Your task to perform on an android device: Go to accessibility settings Image 0: 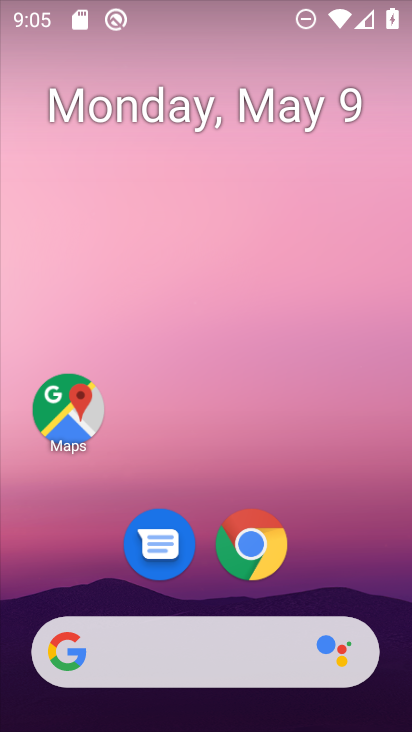
Step 0: drag from (322, 563) to (275, 238)
Your task to perform on an android device: Go to accessibility settings Image 1: 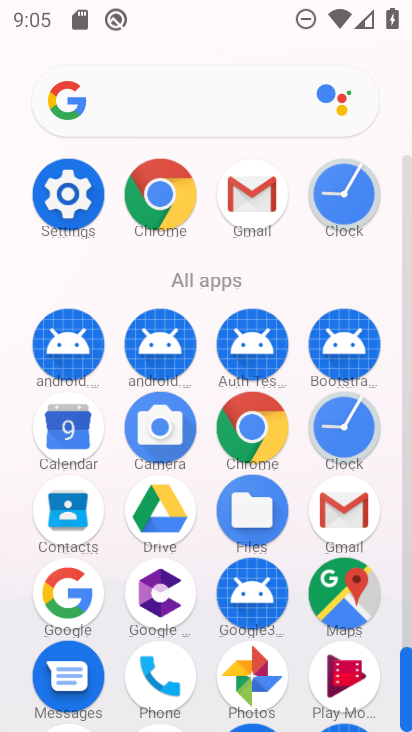
Step 1: click (72, 194)
Your task to perform on an android device: Go to accessibility settings Image 2: 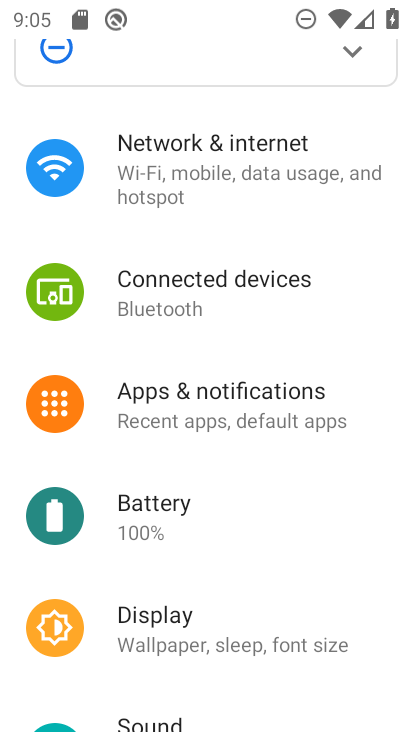
Step 2: drag from (205, 577) to (209, 41)
Your task to perform on an android device: Go to accessibility settings Image 3: 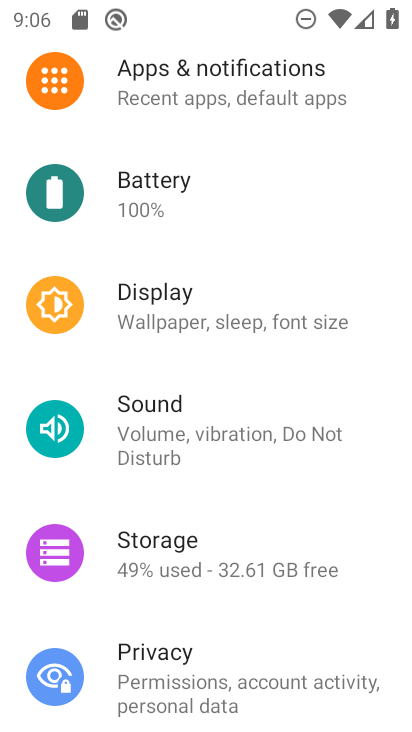
Step 3: drag from (197, 506) to (172, 197)
Your task to perform on an android device: Go to accessibility settings Image 4: 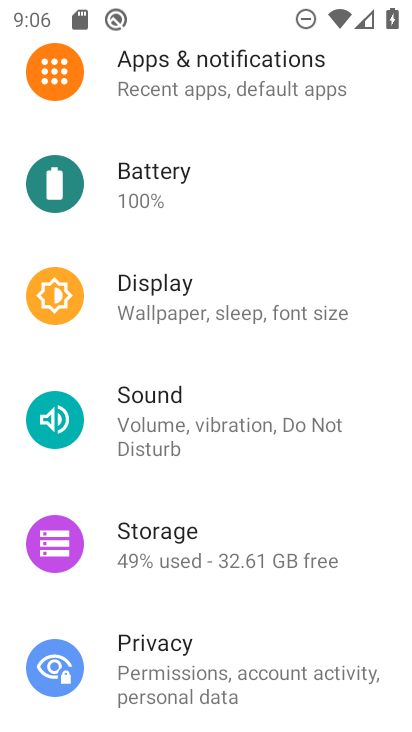
Step 4: drag from (130, 593) to (262, 118)
Your task to perform on an android device: Go to accessibility settings Image 5: 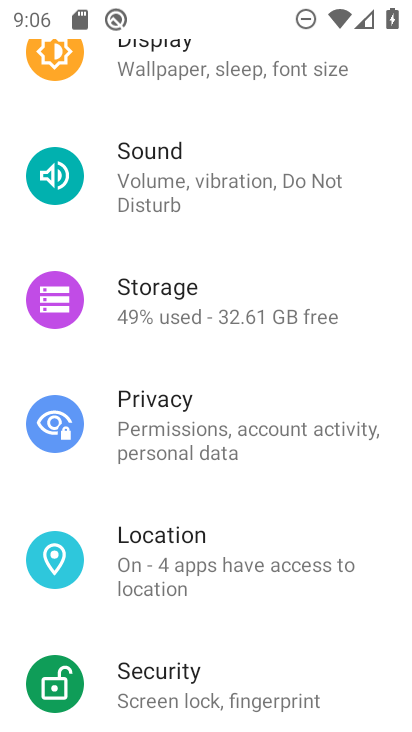
Step 5: drag from (231, 616) to (140, 154)
Your task to perform on an android device: Go to accessibility settings Image 6: 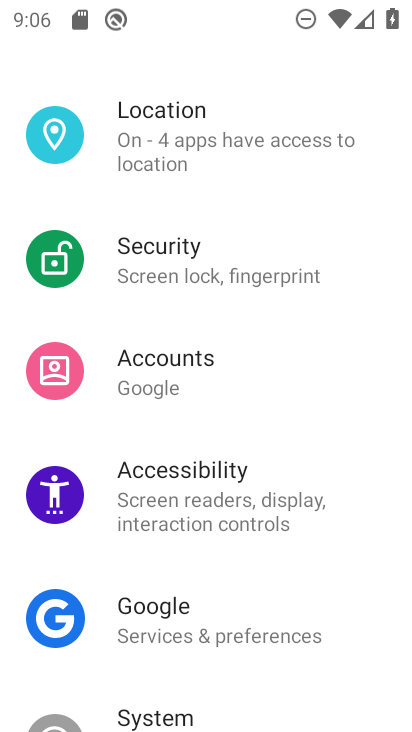
Step 6: click (183, 480)
Your task to perform on an android device: Go to accessibility settings Image 7: 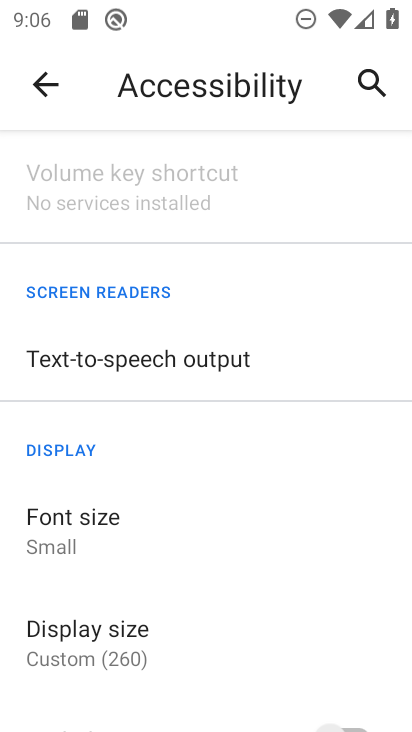
Step 7: task complete